Your task to perform on an android device: Go to calendar. Show me events next week Image 0: 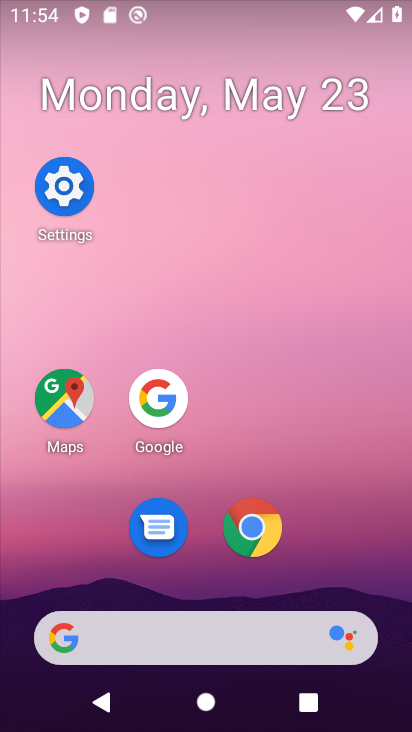
Step 0: drag from (318, 563) to (347, 221)
Your task to perform on an android device: Go to calendar. Show me events next week Image 1: 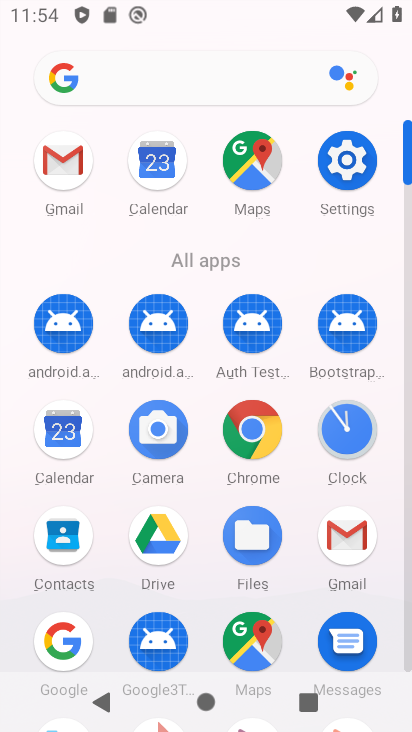
Step 1: click (86, 450)
Your task to perform on an android device: Go to calendar. Show me events next week Image 2: 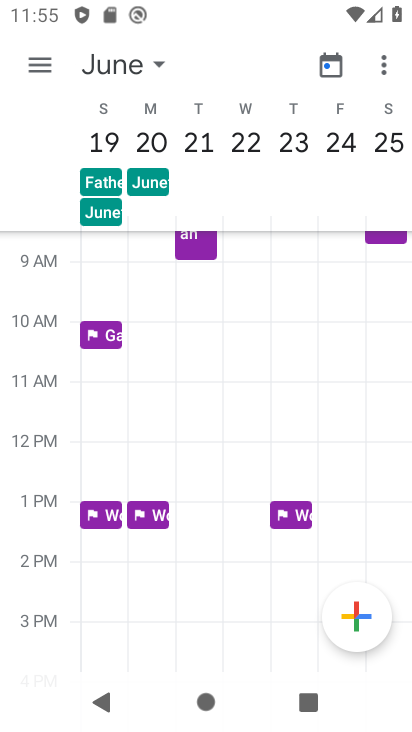
Step 2: click (153, 60)
Your task to perform on an android device: Go to calendar. Show me events next week Image 3: 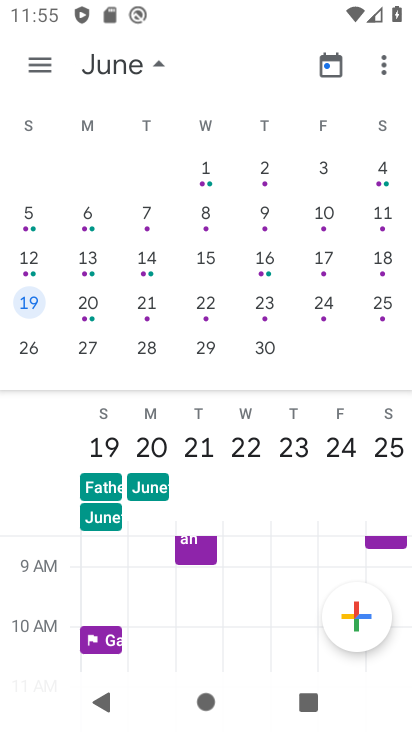
Step 3: drag from (34, 258) to (392, 313)
Your task to perform on an android device: Go to calendar. Show me events next week Image 4: 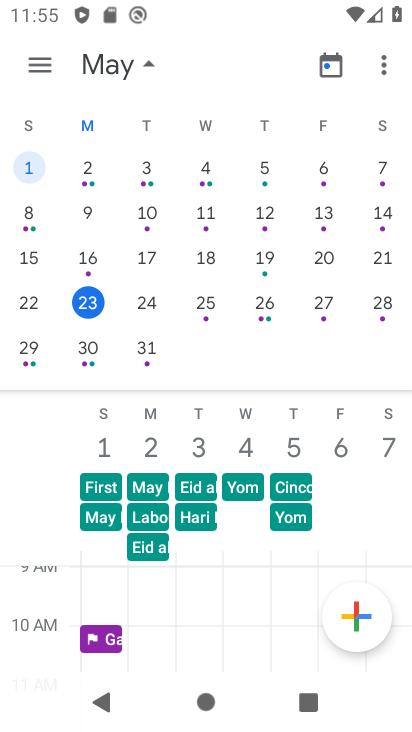
Step 4: click (36, 71)
Your task to perform on an android device: Go to calendar. Show me events next week Image 5: 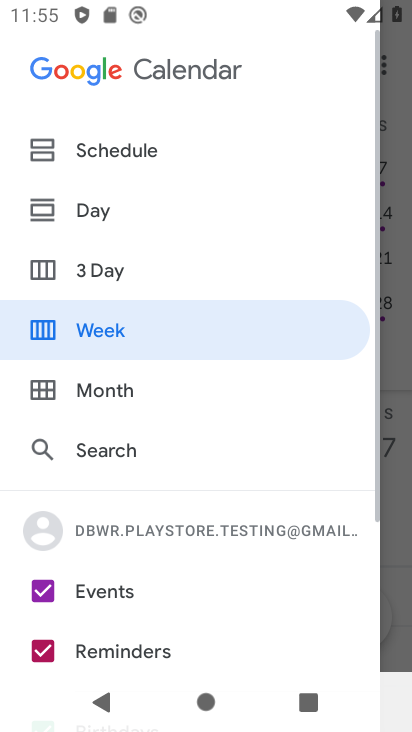
Step 5: click (151, 336)
Your task to perform on an android device: Go to calendar. Show me events next week Image 6: 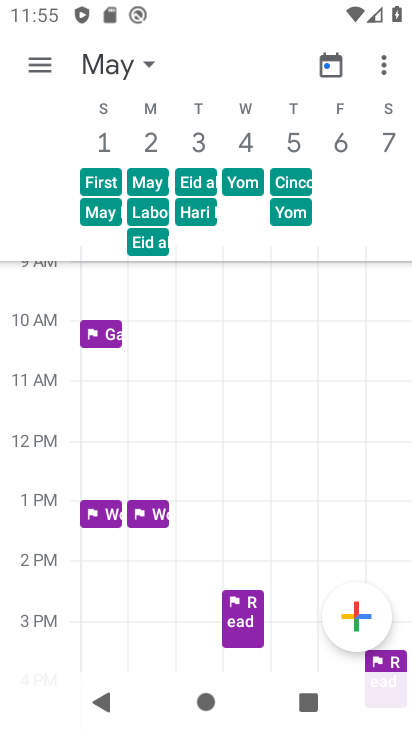
Step 6: task complete